Your task to perform on an android device: Open Chrome and go to the settings page Image 0: 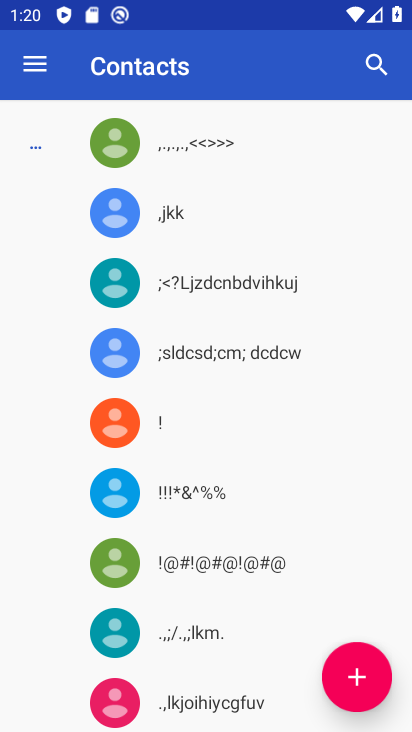
Step 0: press home button
Your task to perform on an android device: Open Chrome and go to the settings page Image 1: 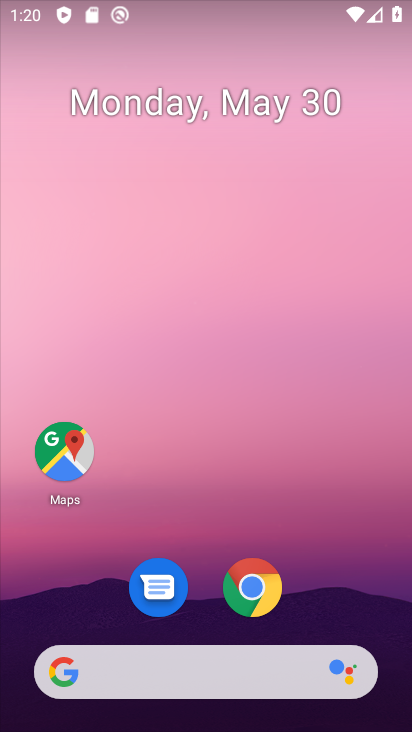
Step 1: click (259, 598)
Your task to perform on an android device: Open Chrome and go to the settings page Image 2: 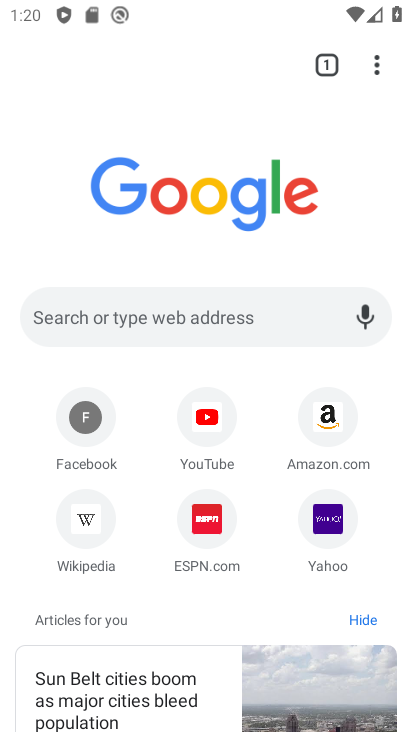
Step 2: click (376, 61)
Your task to perform on an android device: Open Chrome and go to the settings page Image 3: 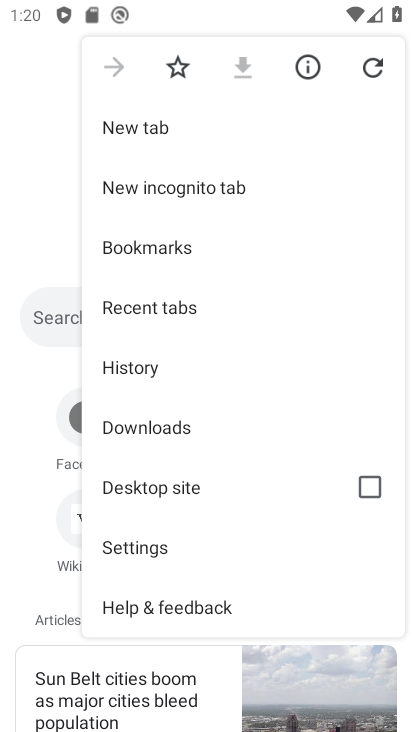
Step 3: click (194, 537)
Your task to perform on an android device: Open Chrome and go to the settings page Image 4: 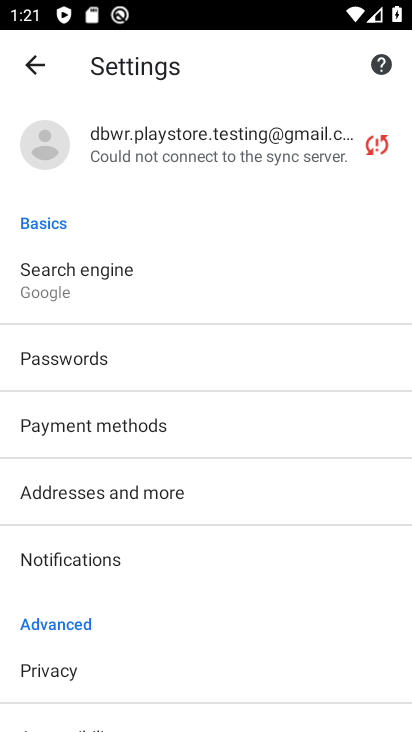
Step 4: task complete